Your task to perform on an android device: Go to wifi settings Image 0: 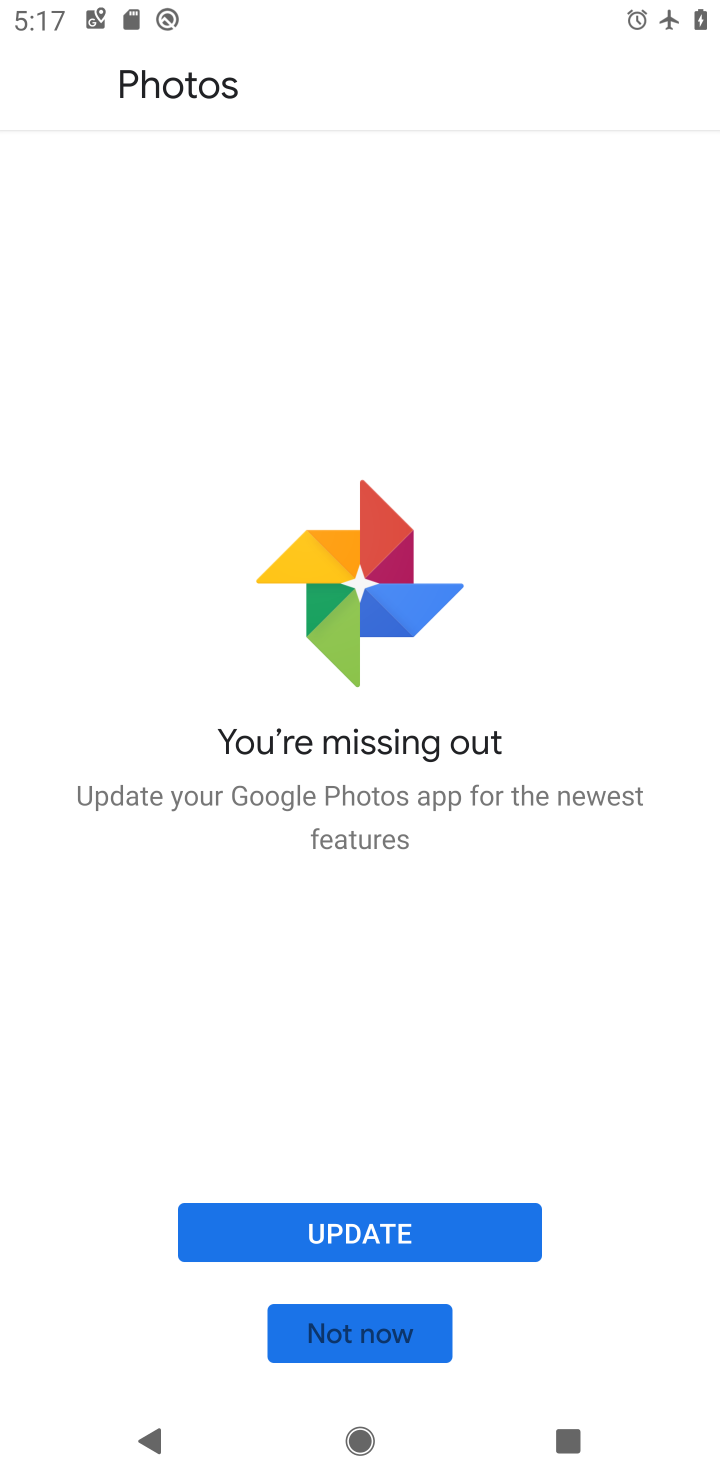
Step 0: press home button
Your task to perform on an android device: Go to wifi settings Image 1: 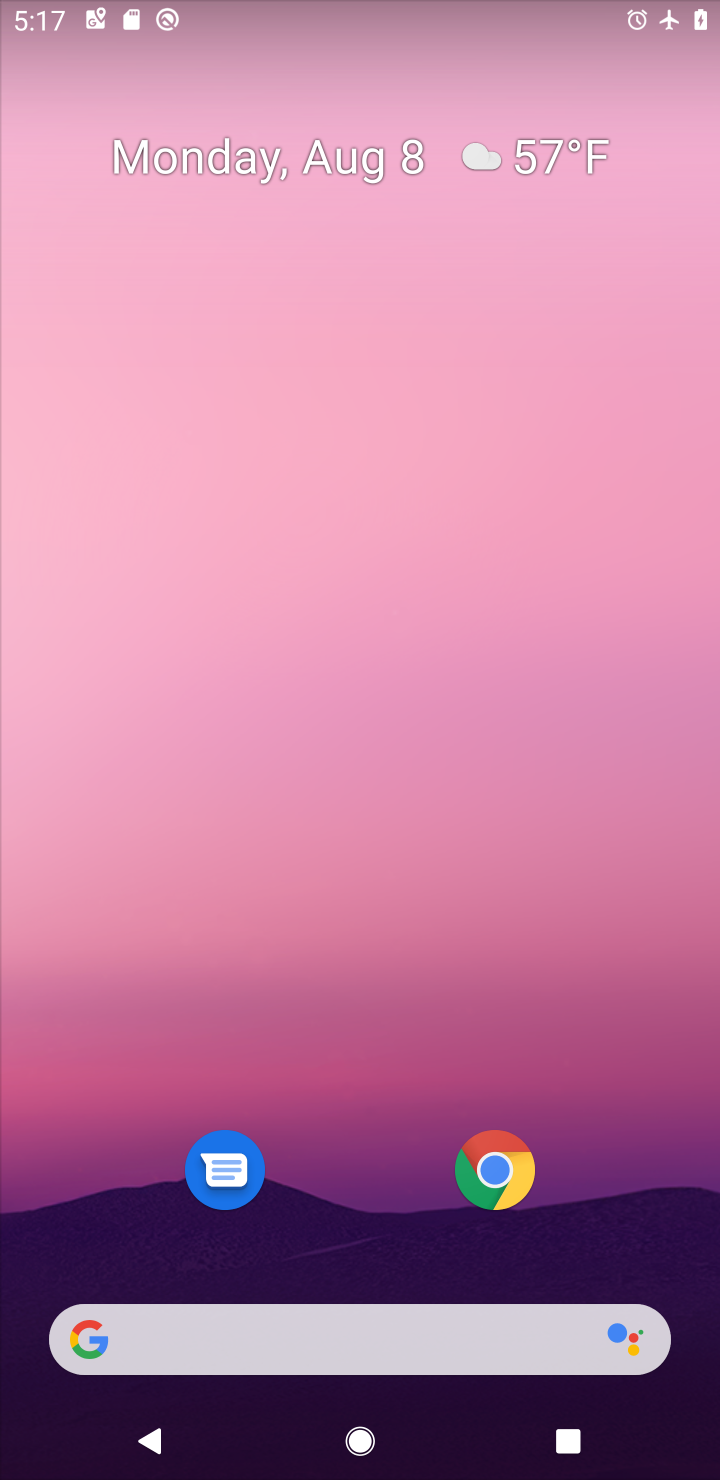
Step 1: drag from (382, 1185) to (351, 311)
Your task to perform on an android device: Go to wifi settings Image 2: 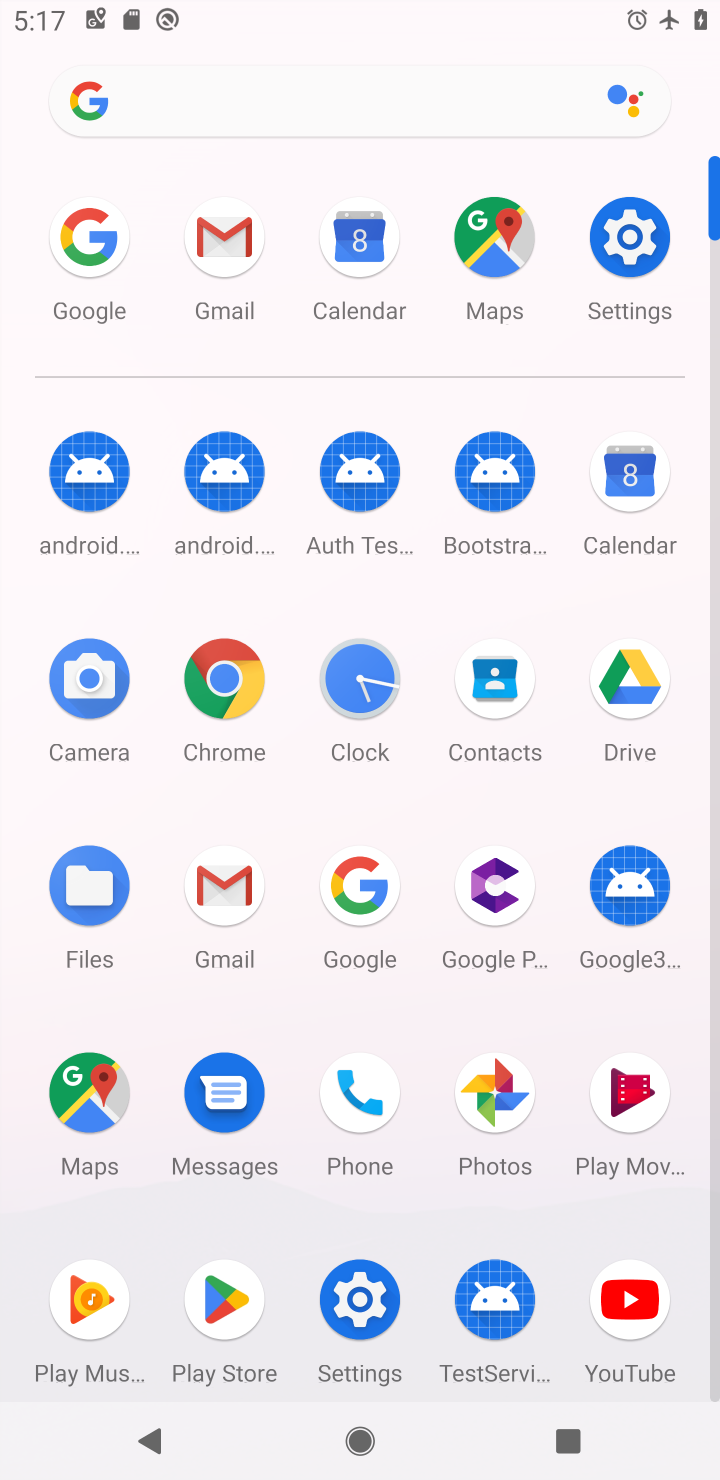
Step 2: click (616, 280)
Your task to perform on an android device: Go to wifi settings Image 3: 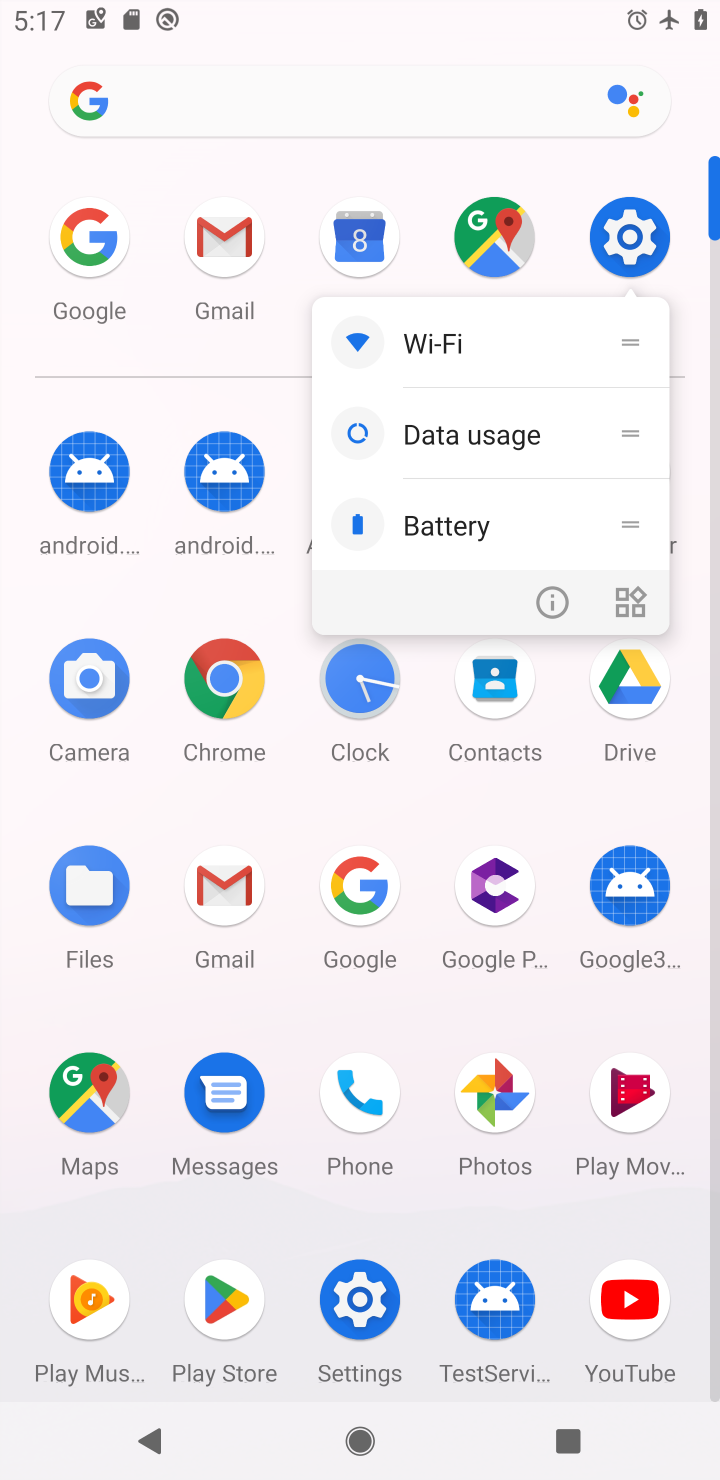
Step 3: click (616, 280)
Your task to perform on an android device: Go to wifi settings Image 4: 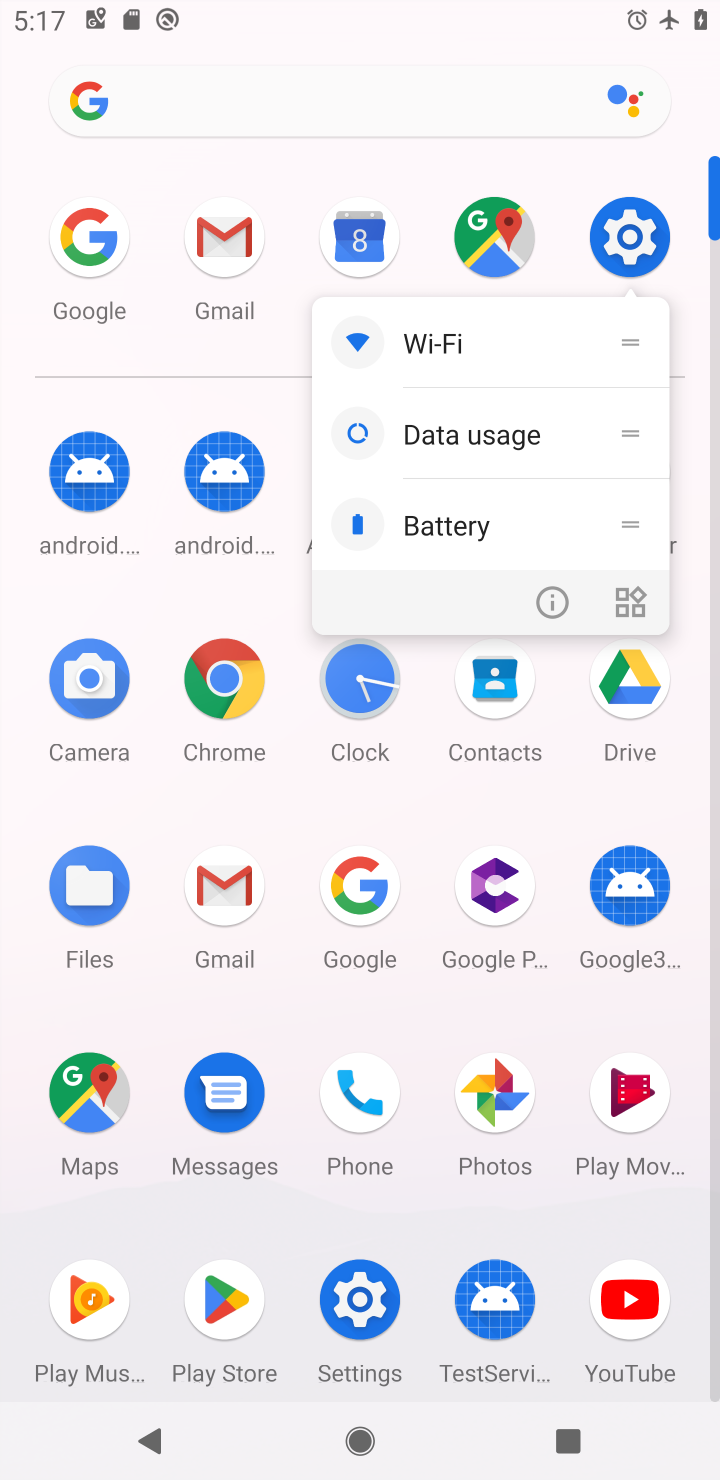
Step 4: click (634, 231)
Your task to perform on an android device: Go to wifi settings Image 5: 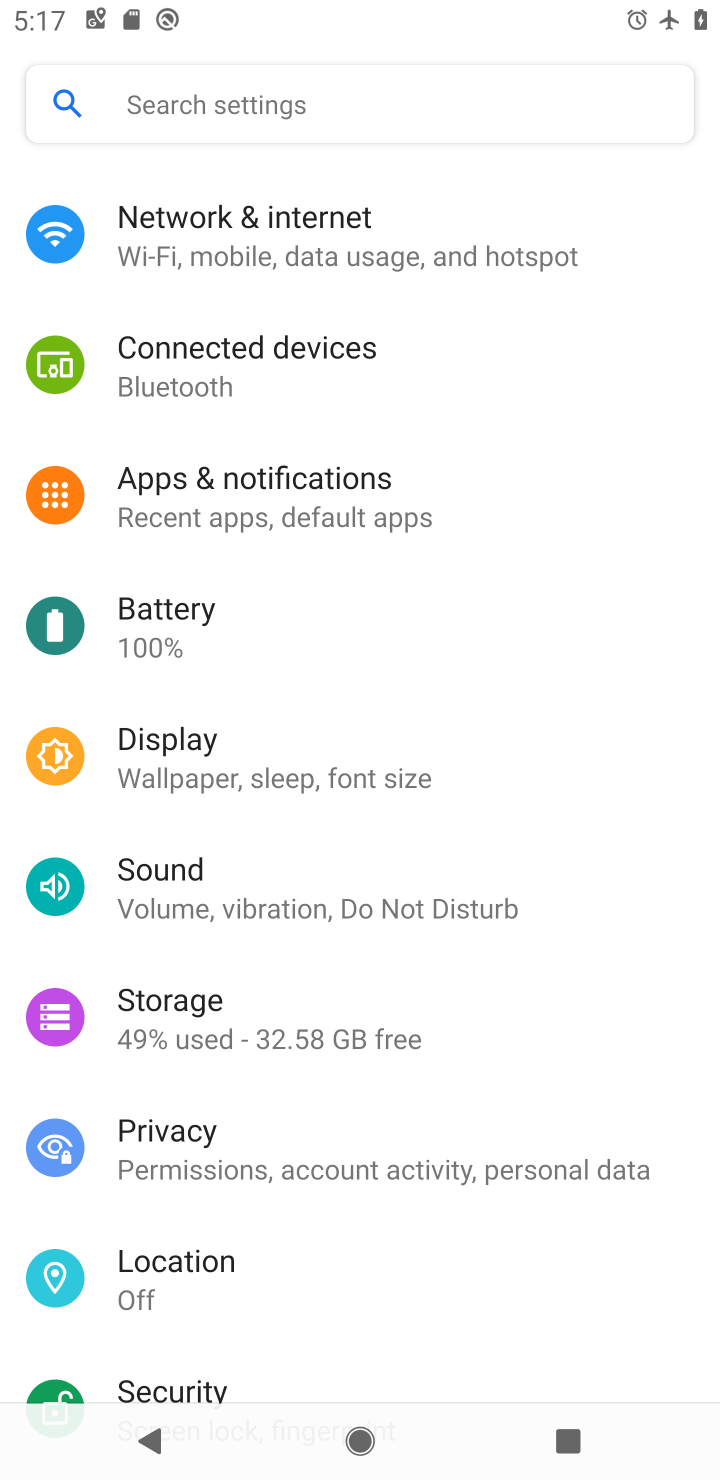
Step 5: click (204, 255)
Your task to perform on an android device: Go to wifi settings Image 6: 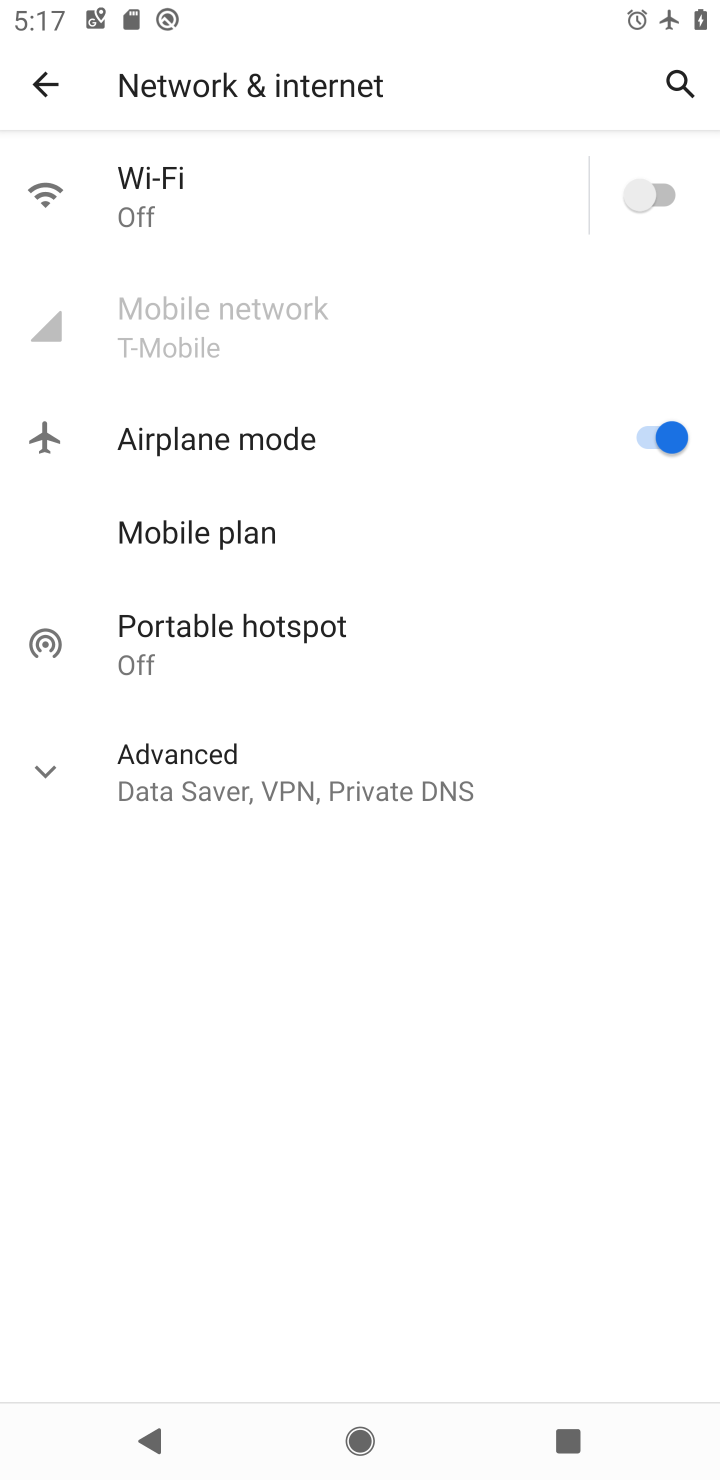
Step 6: click (200, 203)
Your task to perform on an android device: Go to wifi settings Image 7: 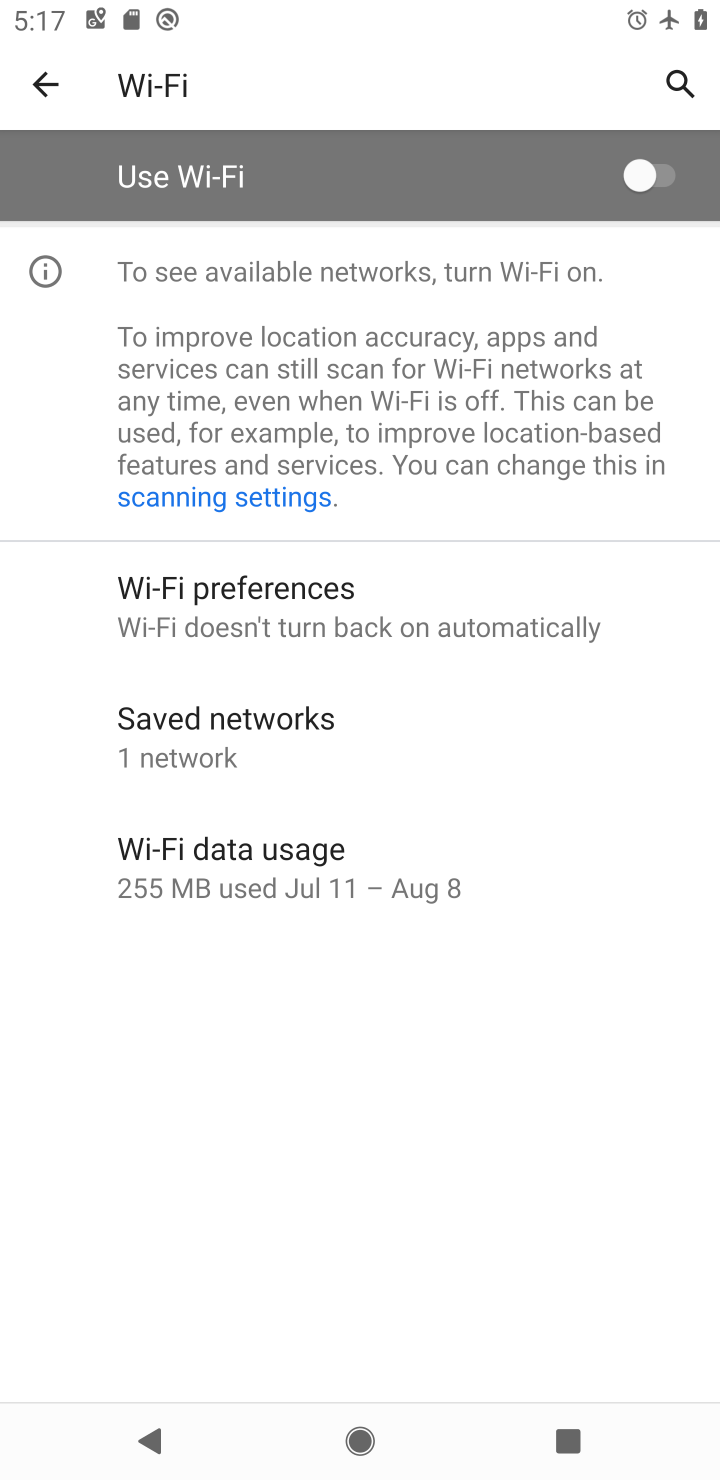
Step 7: task complete